Your task to perform on an android device: change notifications settings Image 0: 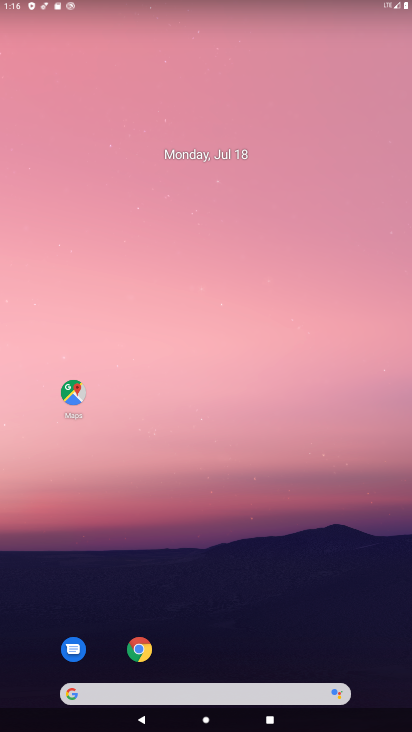
Step 0: drag from (243, 673) to (349, 41)
Your task to perform on an android device: change notifications settings Image 1: 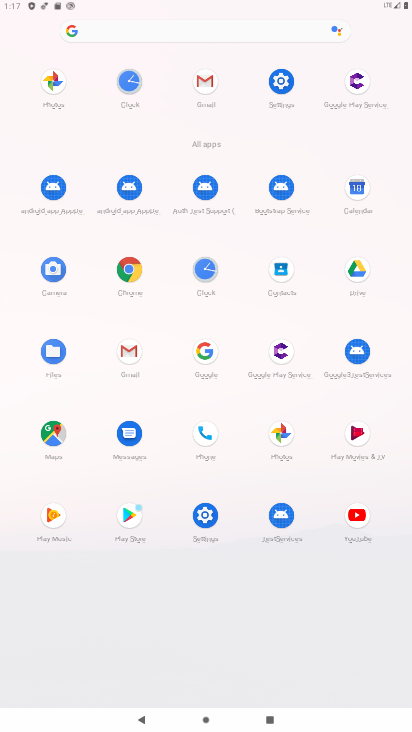
Step 1: click (284, 88)
Your task to perform on an android device: change notifications settings Image 2: 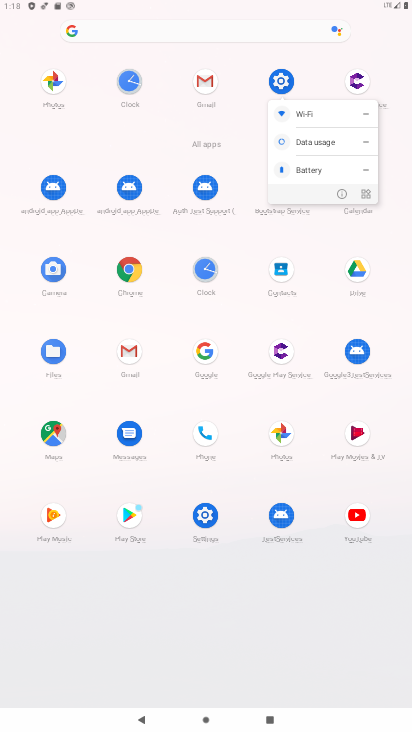
Step 2: click (288, 72)
Your task to perform on an android device: change notifications settings Image 3: 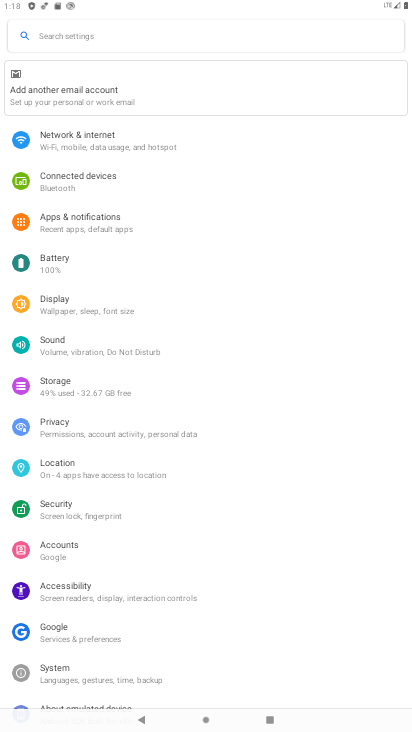
Step 3: click (136, 228)
Your task to perform on an android device: change notifications settings Image 4: 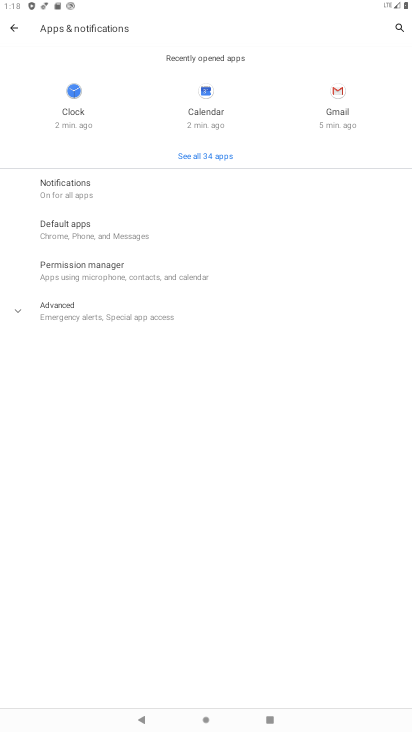
Step 4: click (126, 189)
Your task to perform on an android device: change notifications settings Image 5: 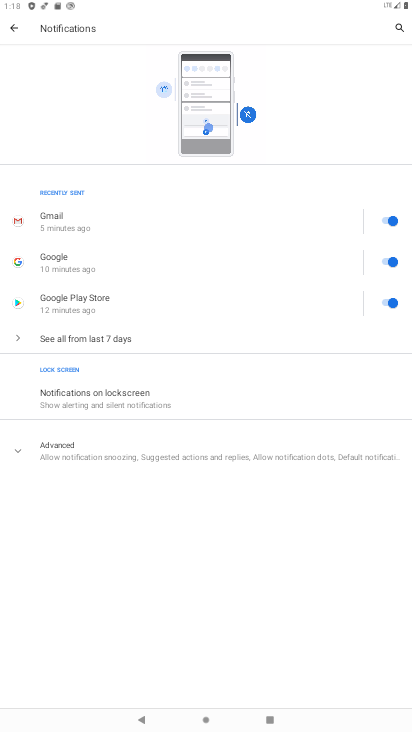
Step 5: click (142, 453)
Your task to perform on an android device: change notifications settings Image 6: 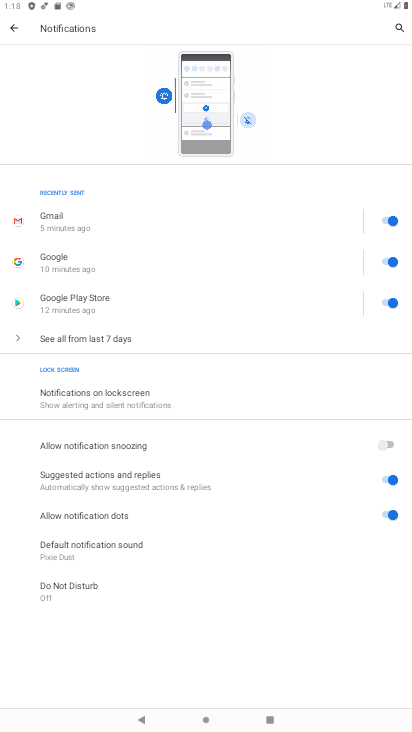
Step 6: click (394, 475)
Your task to perform on an android device: change notifications settings Image 7: 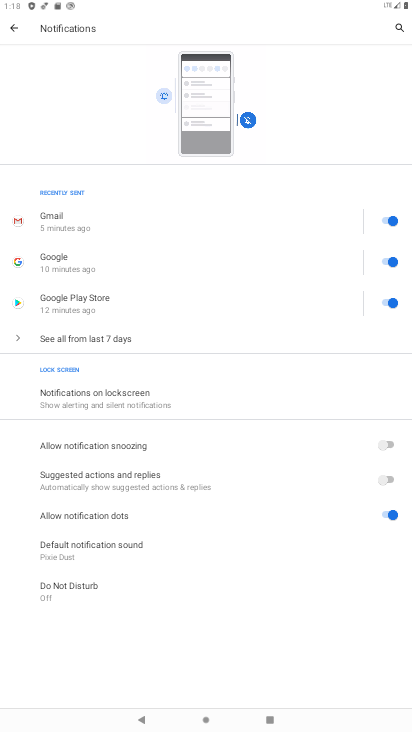
Step 7: task complete